Your task to perform on an android device: turn off location Image 0: 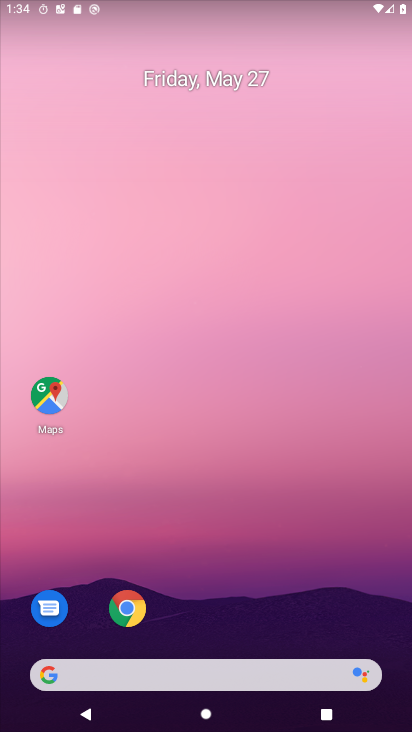
Step 0: drag from (404, 707) to (375, 218)
Your task to perform on an android device: turn off location Image 1: 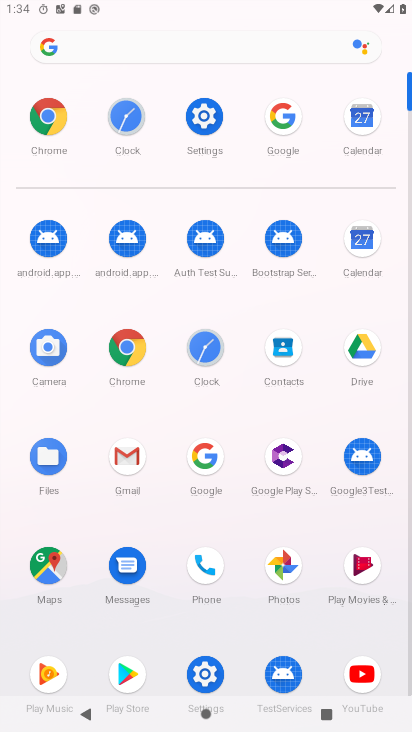
Step 1: click (204, 119)
Your task to perform on an android device: turn off location Image 2: 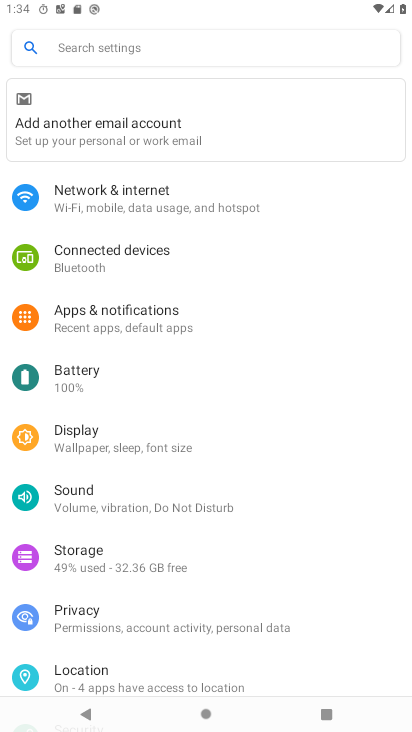
Step 2: click (108, 668)
Your task to perform on an android device: turn off location Image 3: 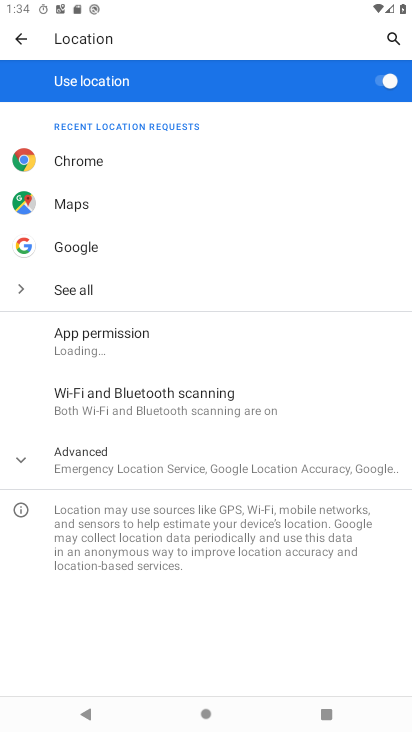
Step 3: click (378, 83)
Your task to perform on an android device: turn off location Image 4: 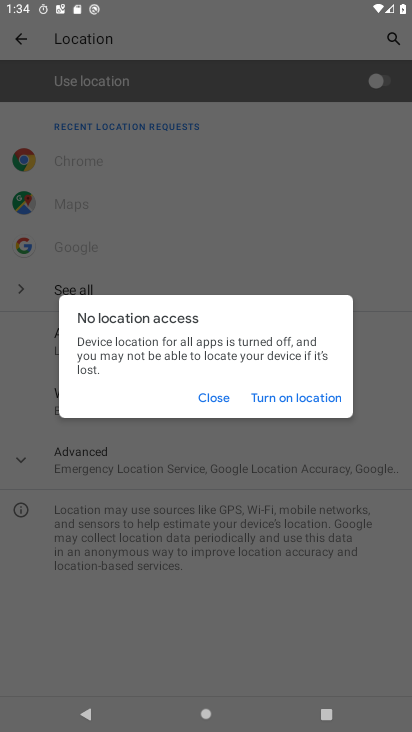
Step 4: task complete